Your task to perform on an android device: Go to Yahoo.com Image 0: 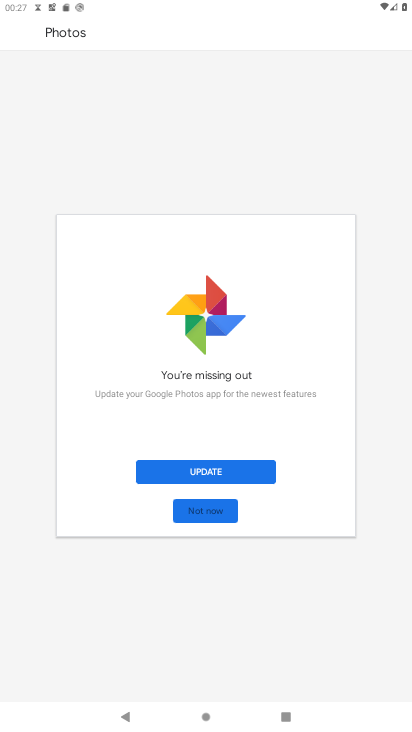
Step 0: press home button
Your task to perform on an android device: Go to Yahoo.com Image 1: 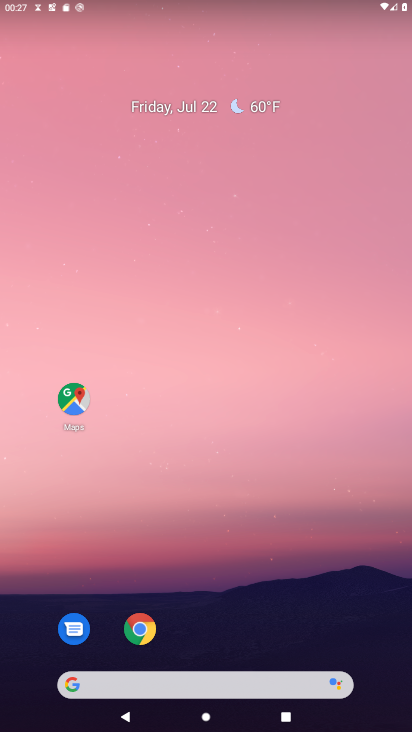
Step 1: click (148, 631)
Your task to perform on an android device: Go to Yahoo.com Image 2: 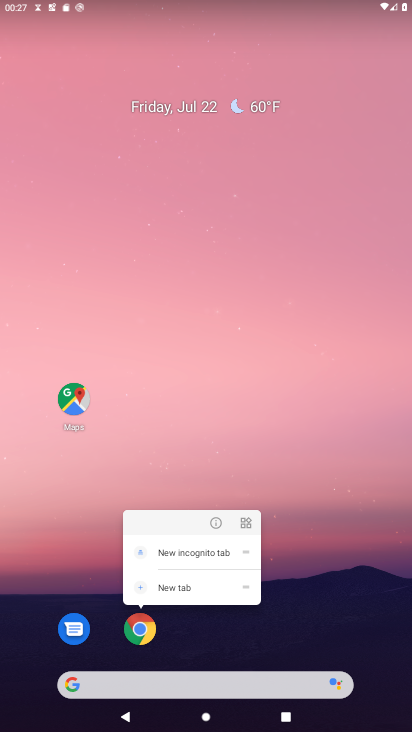
Step 2: click (143, 642)
Your task to perform on an android device: Go to Yahoo.com Image 3: 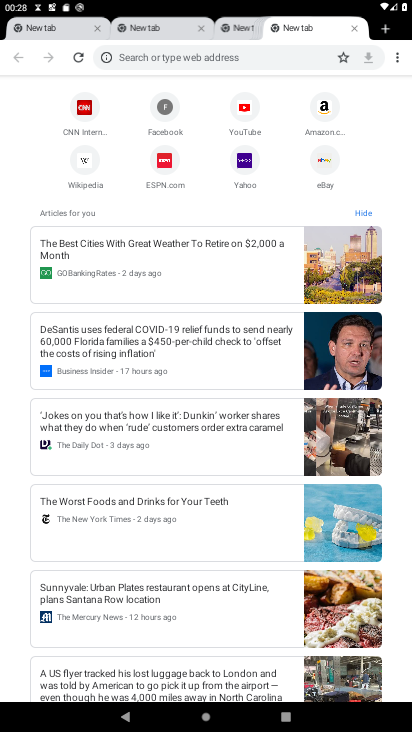
Step 3: click (234, 163)
Your task to perform on an android device: Go to Yahoo.com Image 4: 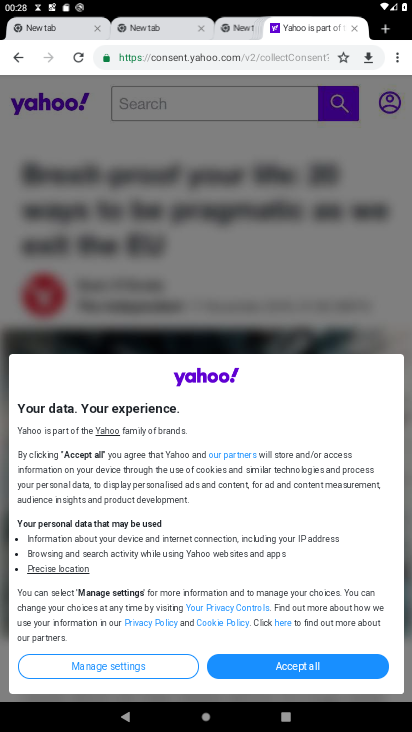
Step 4: task complete